Your task to perform on an android device: turn on javascript in the chrome app Image 0: 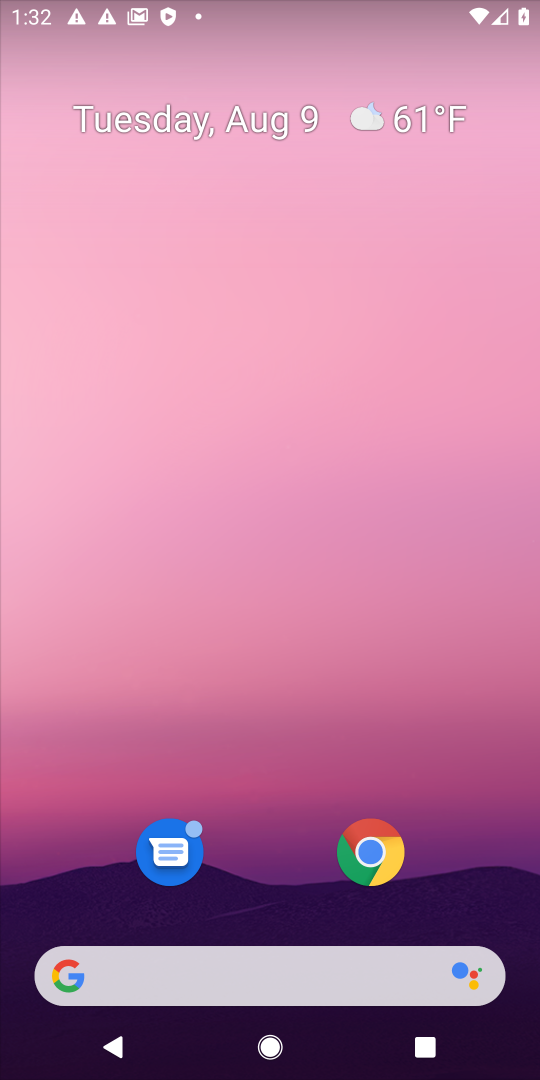
Step 0: click (366, 867)
Your task to perform on an android device: turn on javascript in the chrome app Image 1: 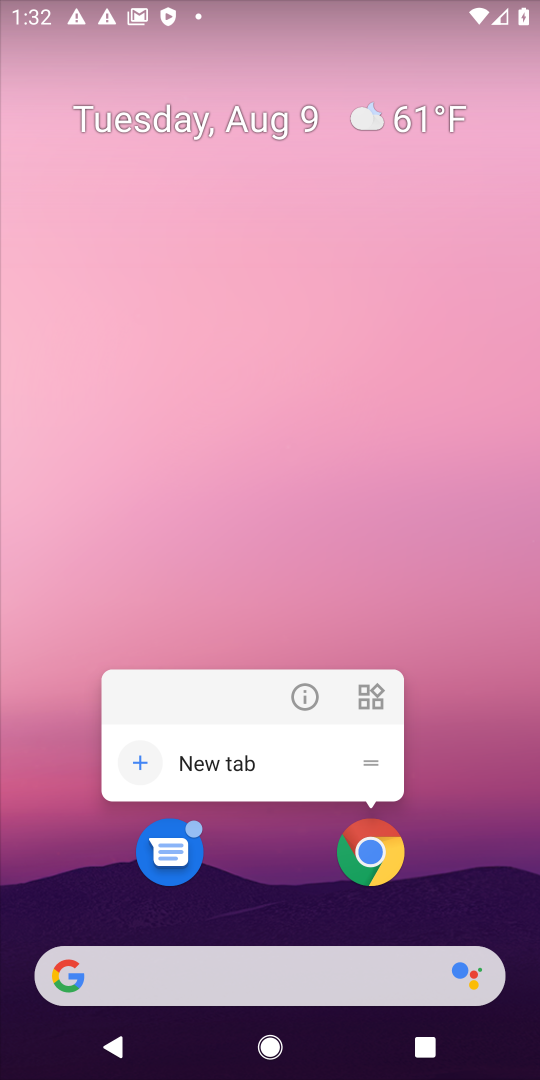
Step 1: click (360, 860)
Your task to perform on an android device: turn on javascript in the chrome app Image 2: 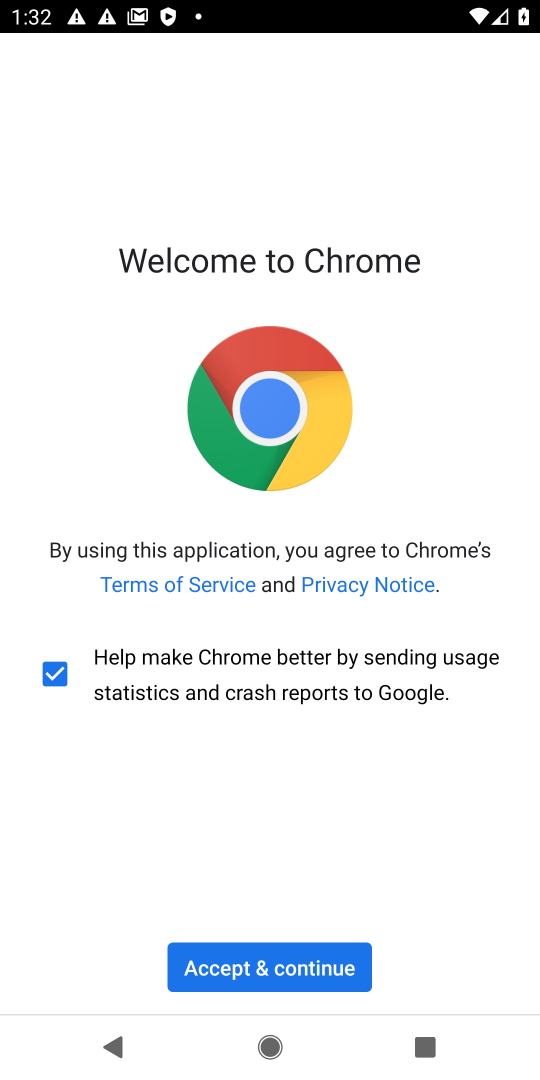
Step 2: click (316, 971)
Your task to perform on an android device: turn on javascript in the chrome app Image 3: 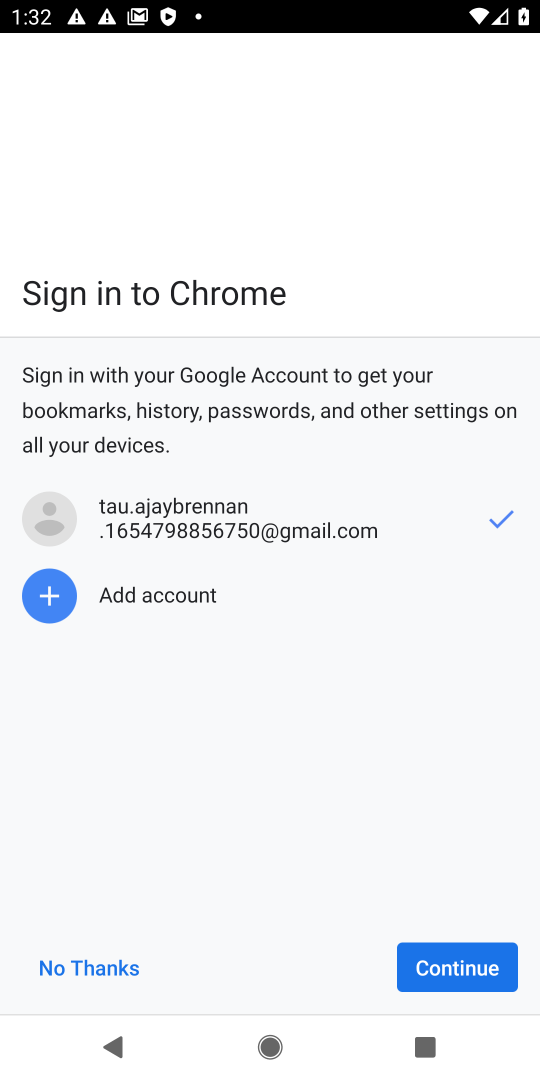
Step 3: click (468, 971)
Your task to perform on an android device: turn on javascript in the chrome app Image 4: 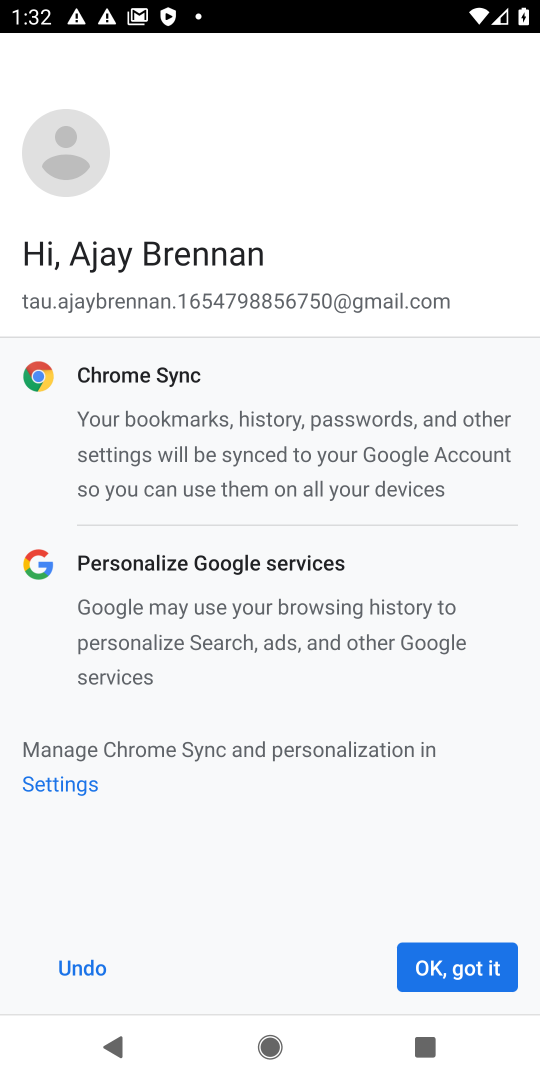
Step 4: click (468, 971)
Your task to perform on an android device: turn on javascript in the chrome app Image 5: 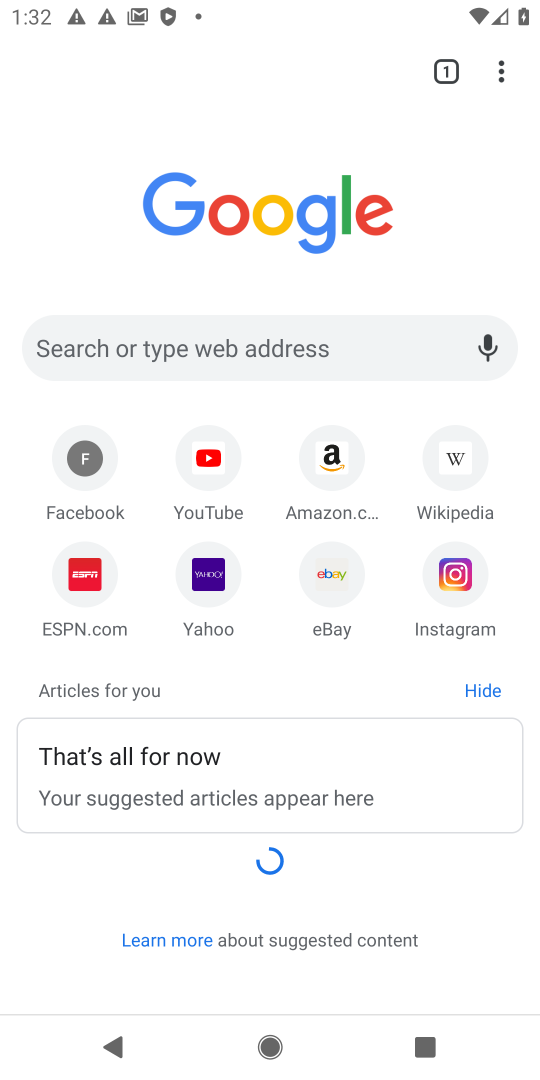
Step 5: click (498, 81)
Your task to perform on an android device: turn on javascript in the chrome app Image 6: 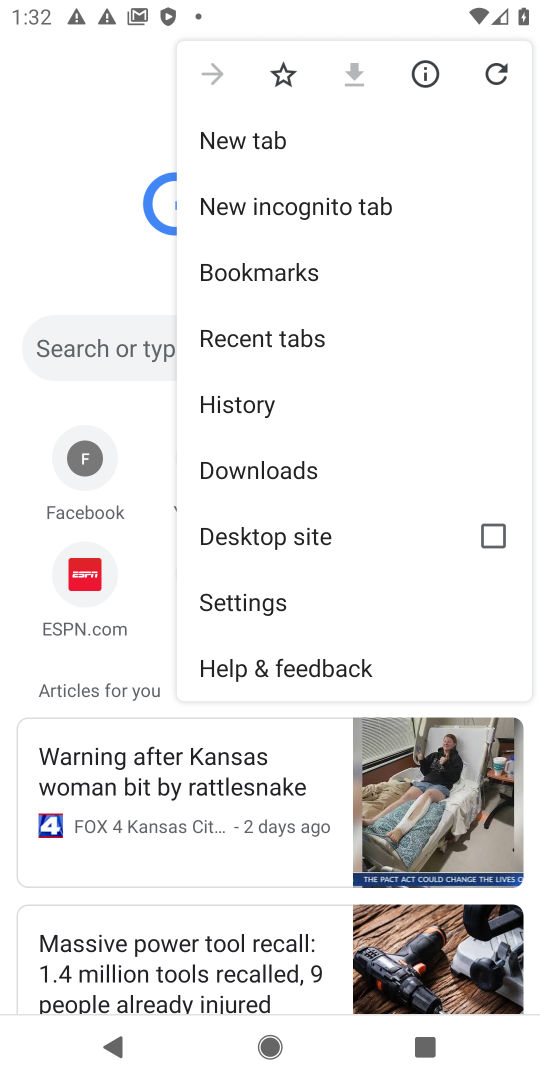
Step 6: click (263, 600)
Your task to perform on an android device: turn on javascript in the chrome app Image 7: 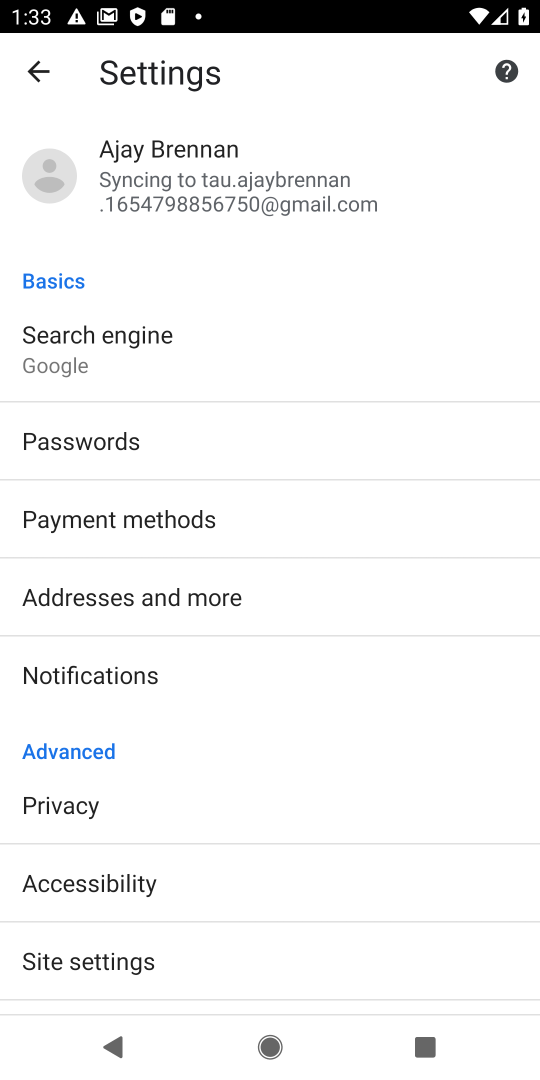
Step 7: click (169, 949)
Your task to perform on an android device: turn on javascript in the chrome app Image 8: 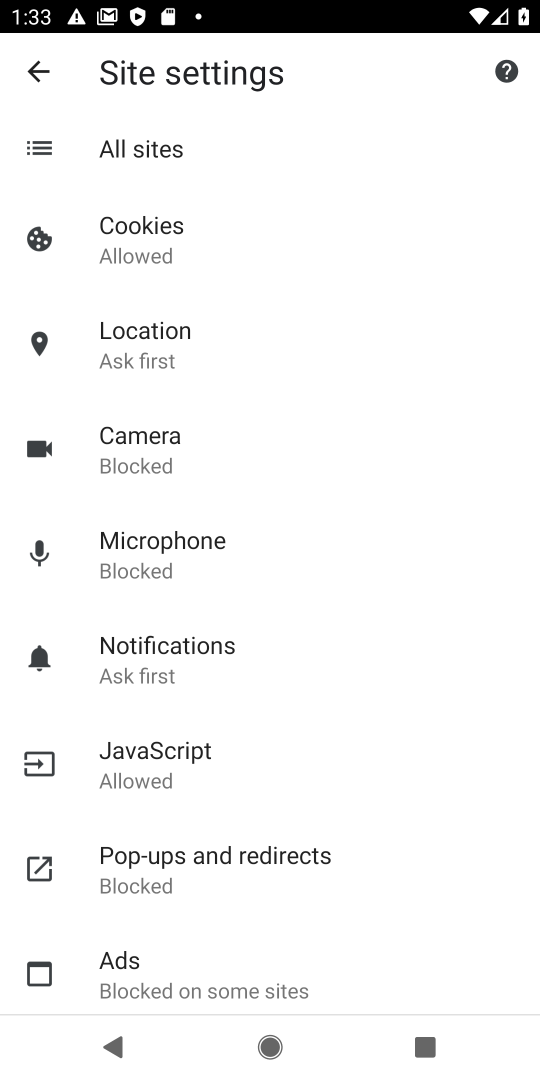
Step 8: click (197, 771)
Your task to perform on an android device: turn on javascript in the chrome app Image 9: 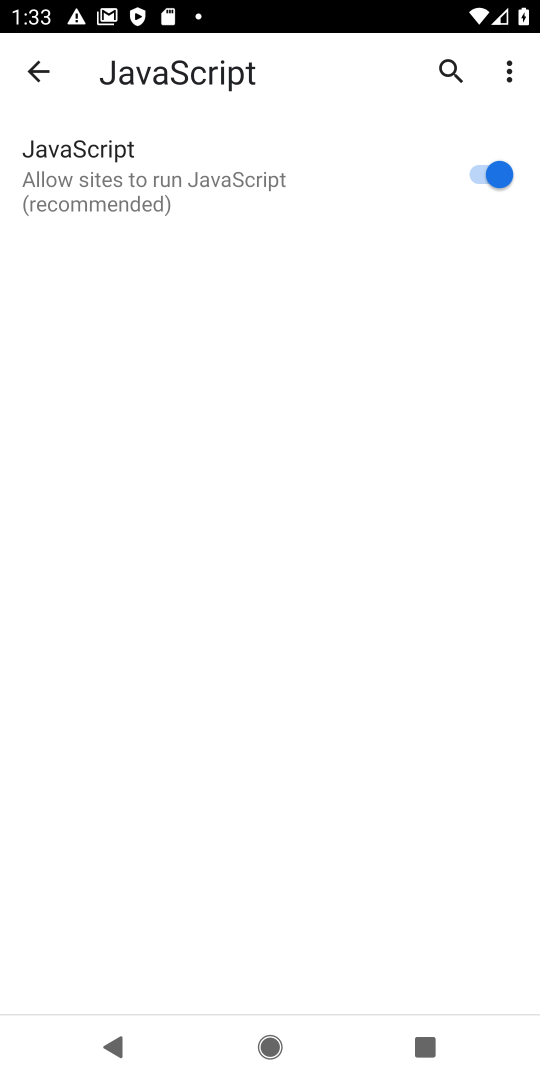
Step 9: task complete